Your task to perform on an android device: open app "Venmo" (install if not already installed) Image 0: 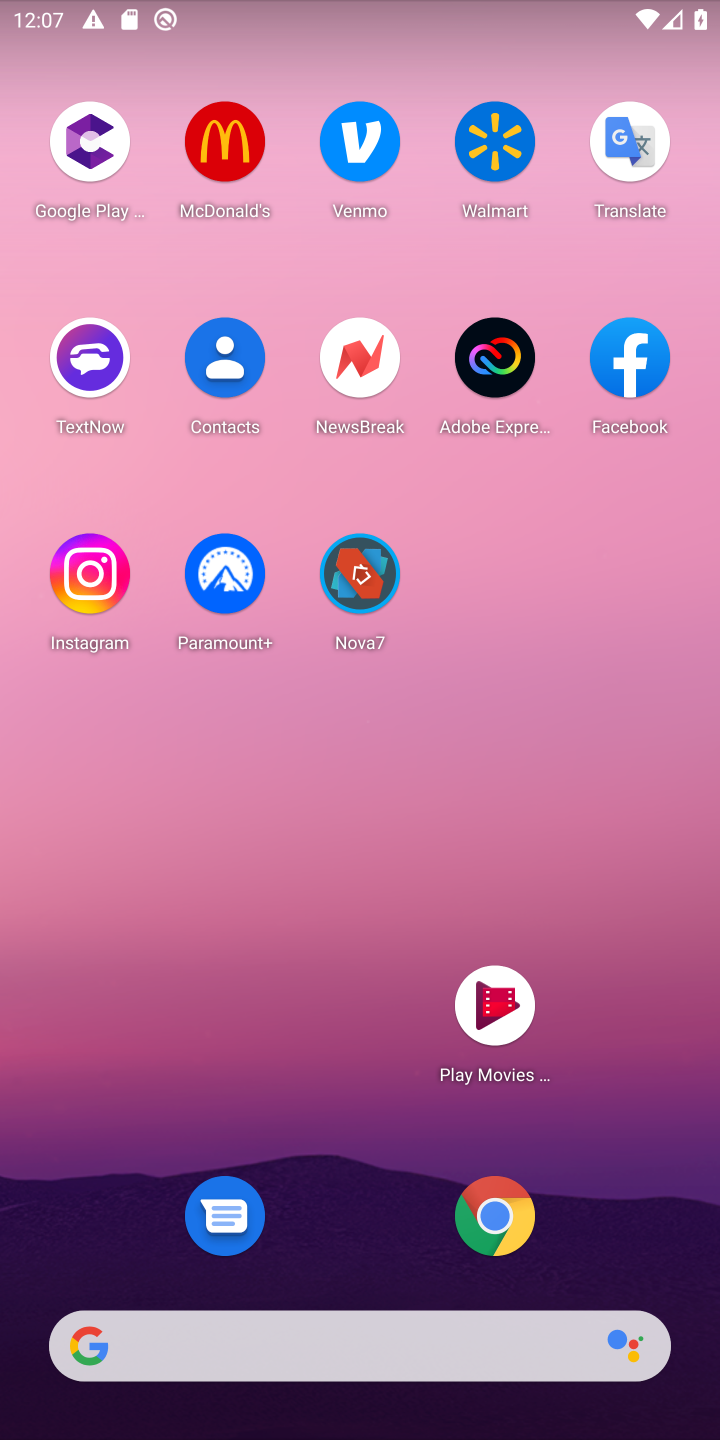
Step 0: drag from (702, 1237) to (669, 478)
Your task to perform on an android device: open app "Venmo" (install if not already installed) Image 1: 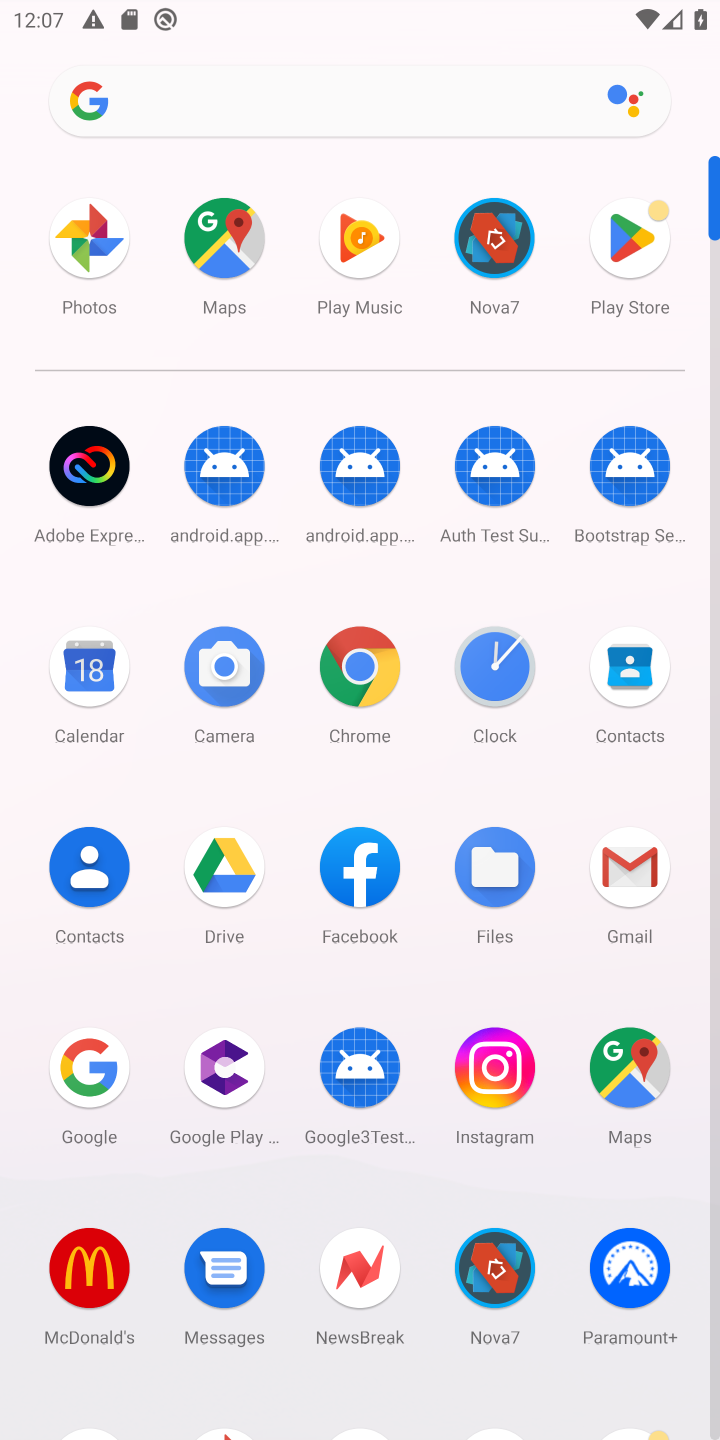
Step 1: click (613, 241)
Your task to perform on an android device: open app "Venmo" (install if not already installed) Image 2: 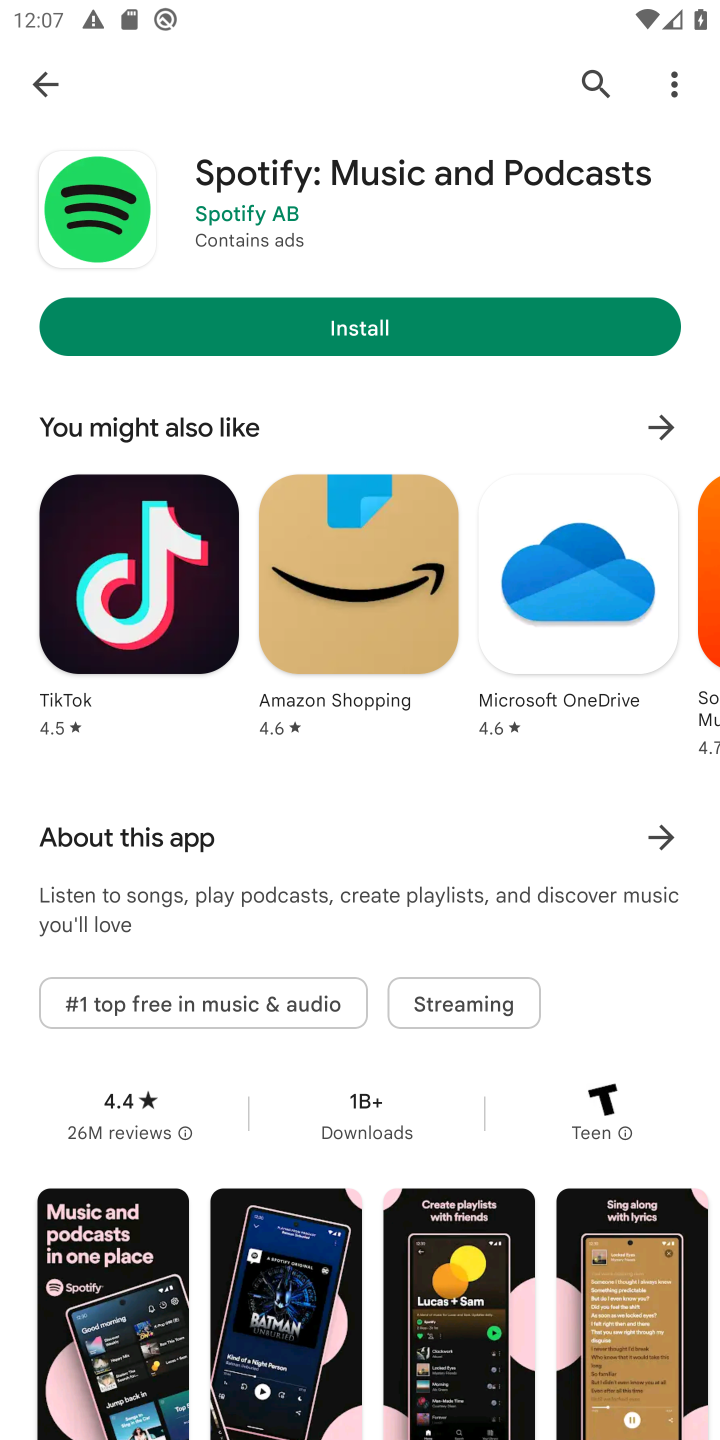
Step 2: click (613, 241)
Your task to perform on an android device: open app "Venmo" (install if not already installed) Image 3: 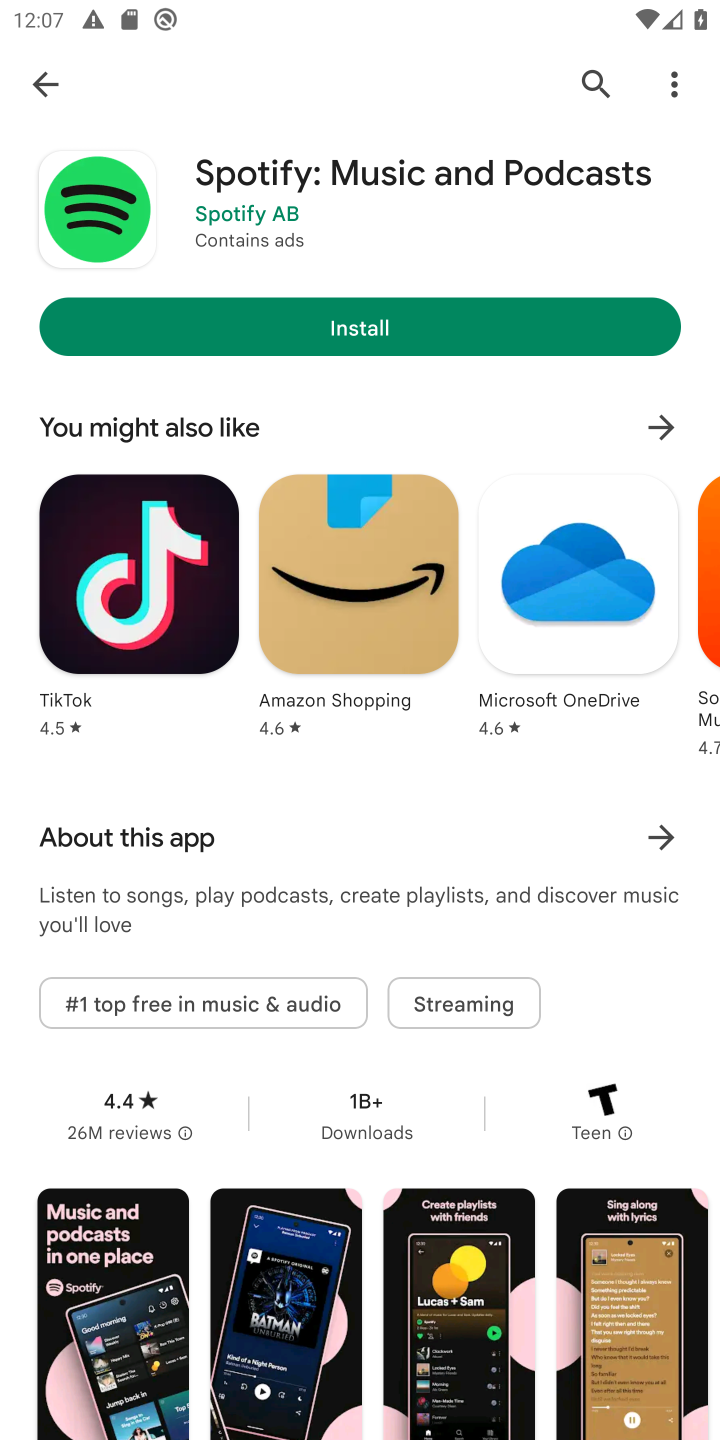
Step 3: click (599, 86)
Your task to perform on an android device: open app "Venmo" (install if not already installed) Image 4: 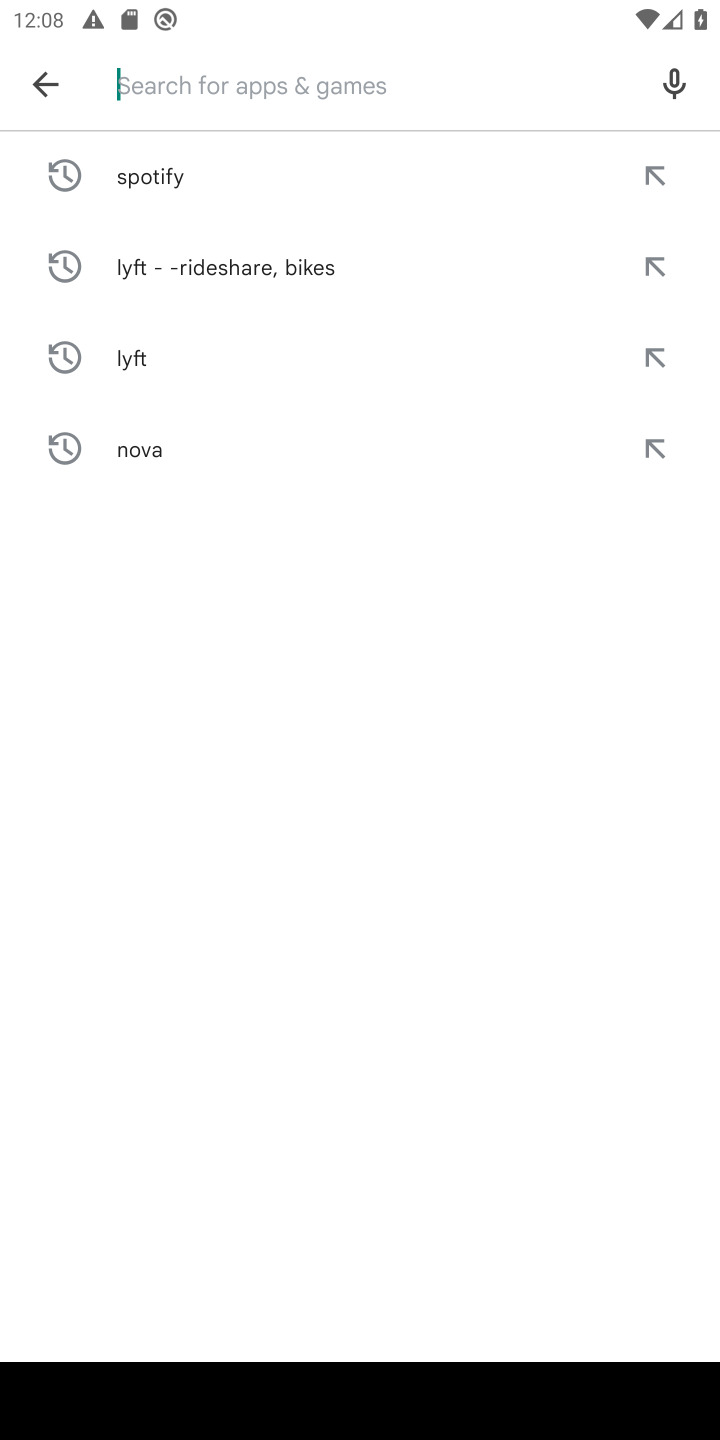
Step 4: type "venmo"
Your task to perform on an android device: open app "Venmo" (install if not already installed) Image 5: 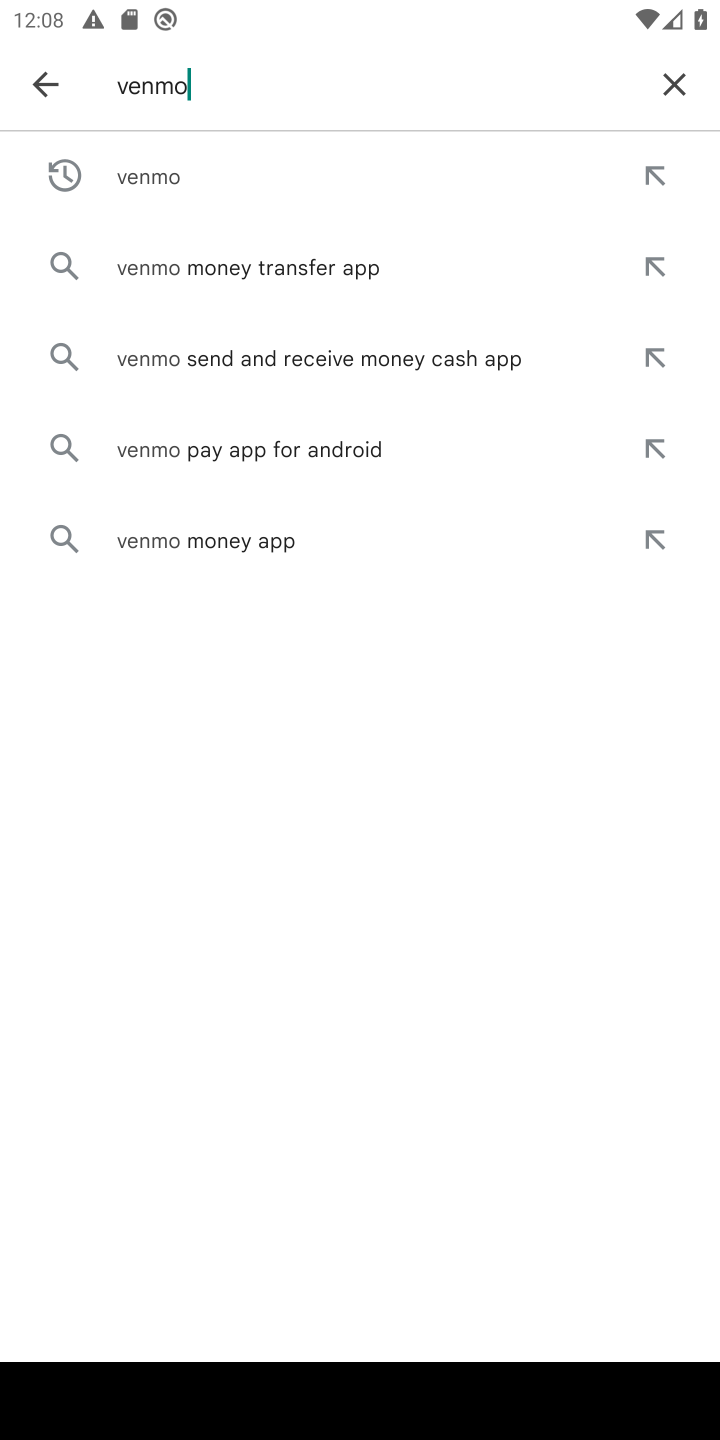
Step 5: click (289, 161)
Your task to perform on an android device: open app "Venmo" (install if not already installed) Image 6: 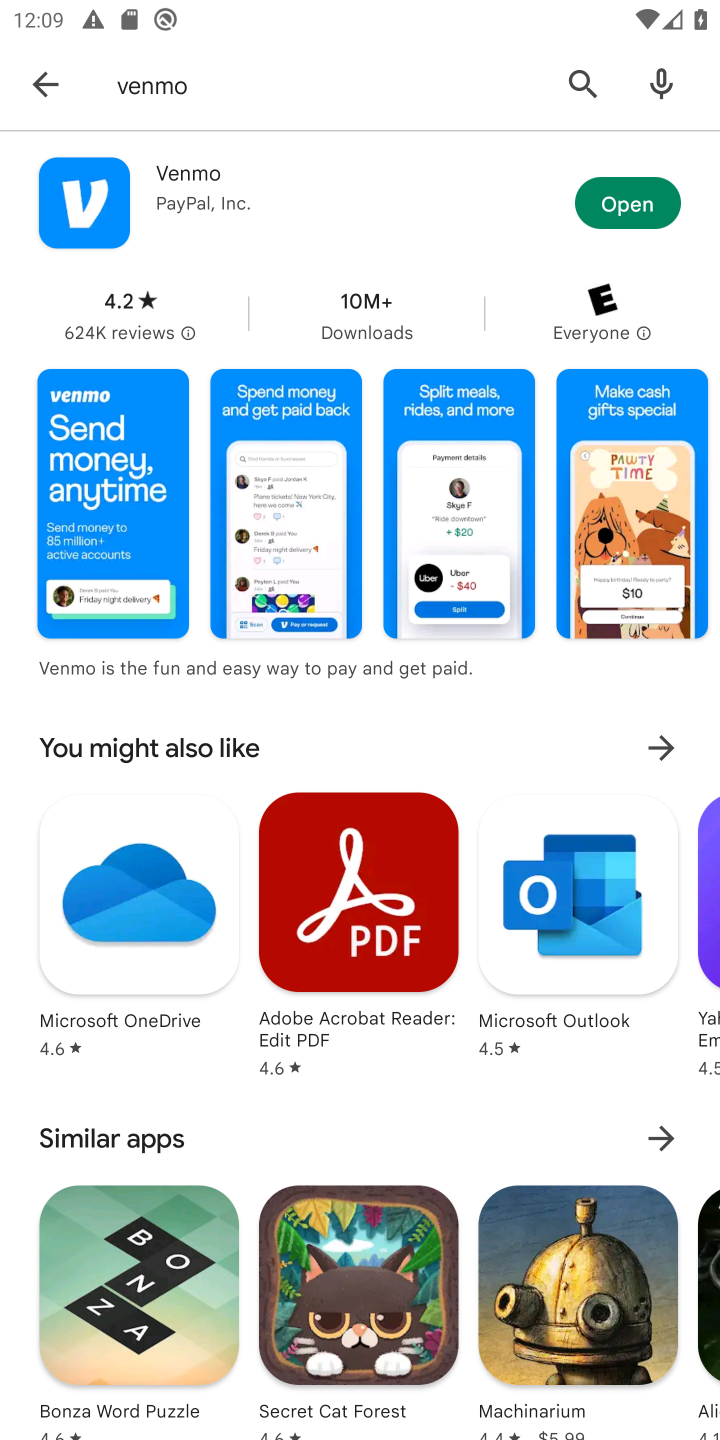
Step 6: click (619, 204)
Your task to perform on an android device: open app "Venmo" (install if not already installed) Image 7: 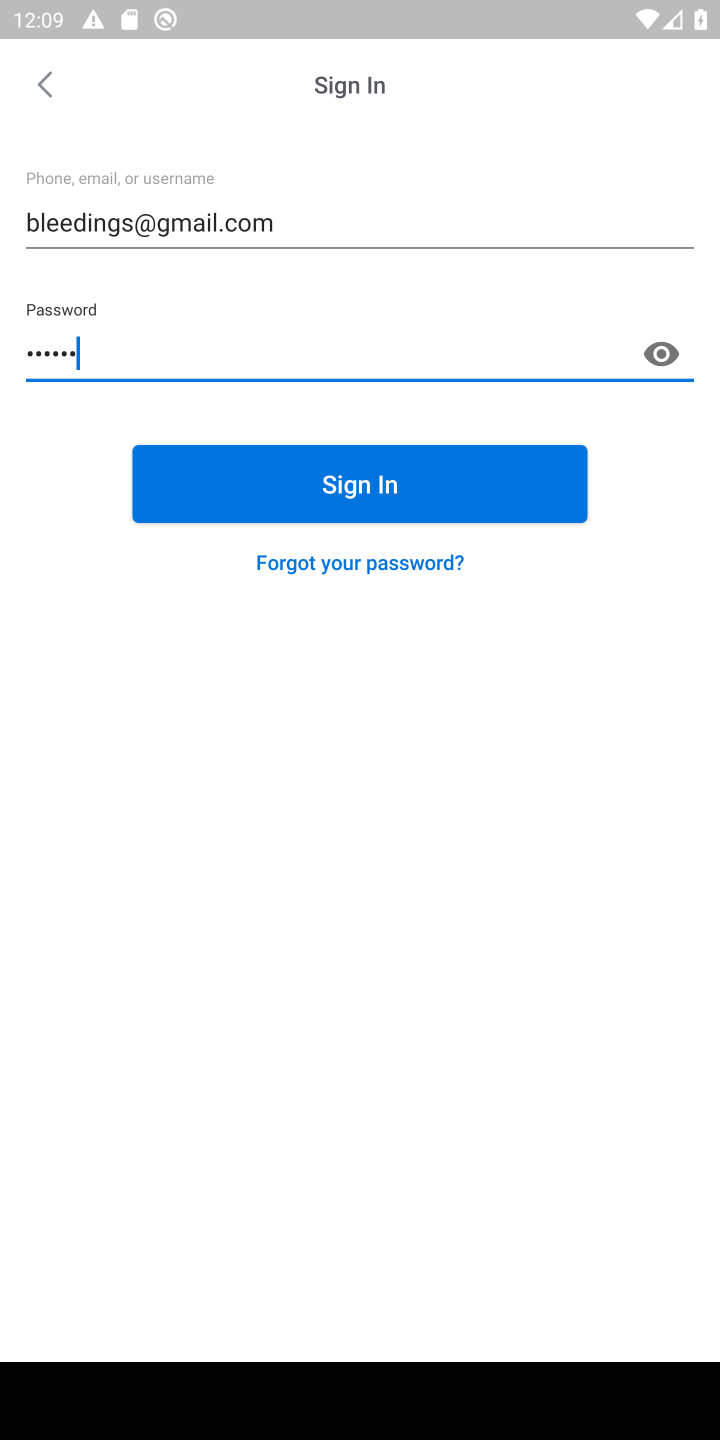
Step 7: task complete